Your task to perform on an android device: What's on my calendar tomorrow? Image 0: 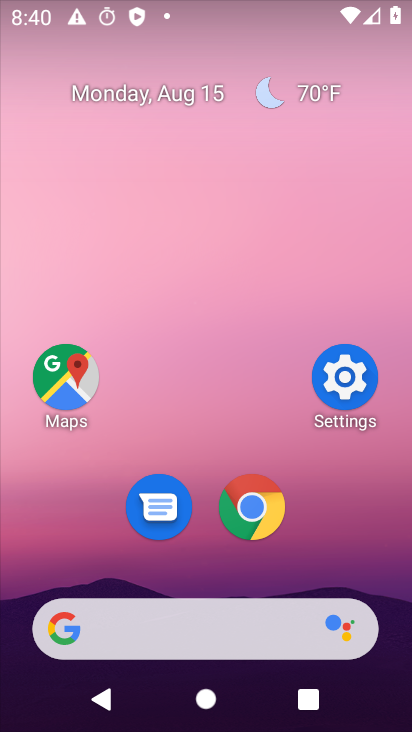
Step 0: drag from (247, 605) to (403, 429)
Your task to perform on an android device: What's on my calendar tomorrow? Image 1: 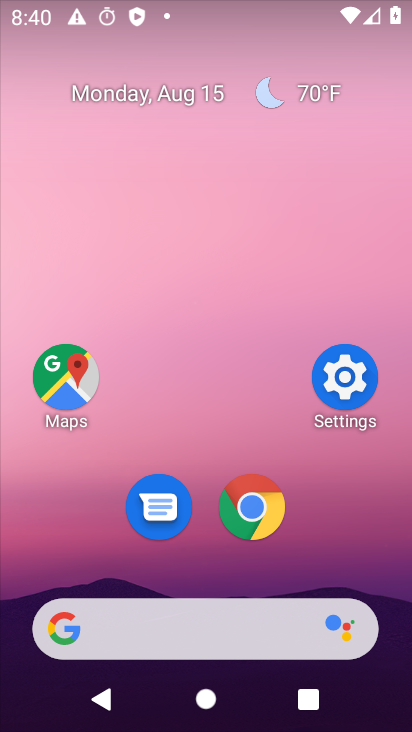
Step 1: drag from (203, 651) to (359, 15)
Your task to perform on an android device: What's on my calendar tomorrow? Image 2: 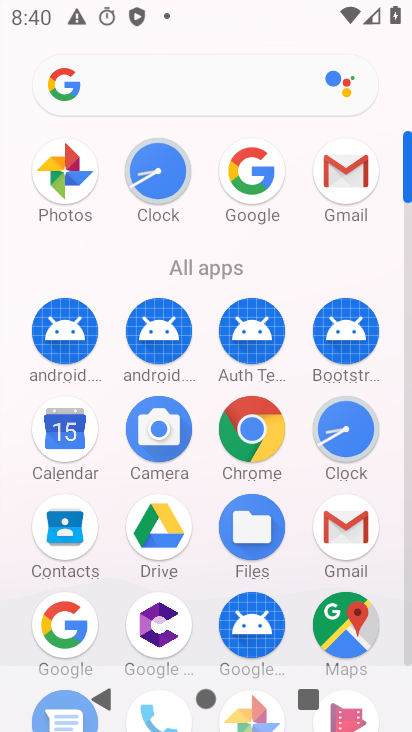
Step 2: click (65, 430)
Your task to perform on an android device: What's on my calendar tomorrow? Image 3: 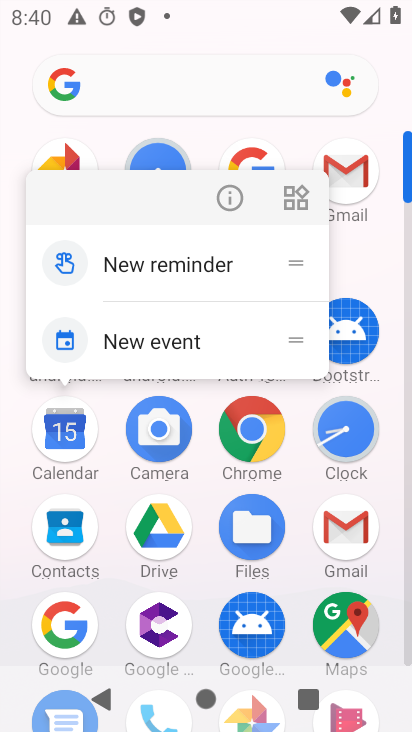
Step 3: click (65, 430)
Your task to perform on an android device: What's on my calendar tomorrow? Image 4: 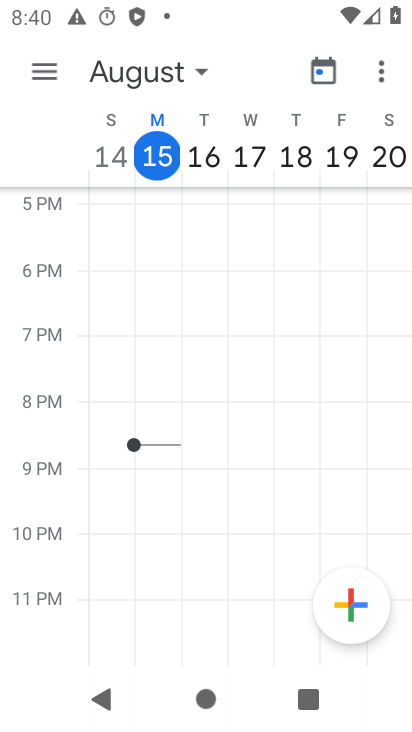
Step 4: click (210, 149)
Your task to perform on an android device: What's on my calendar tomorrow? Image 5: 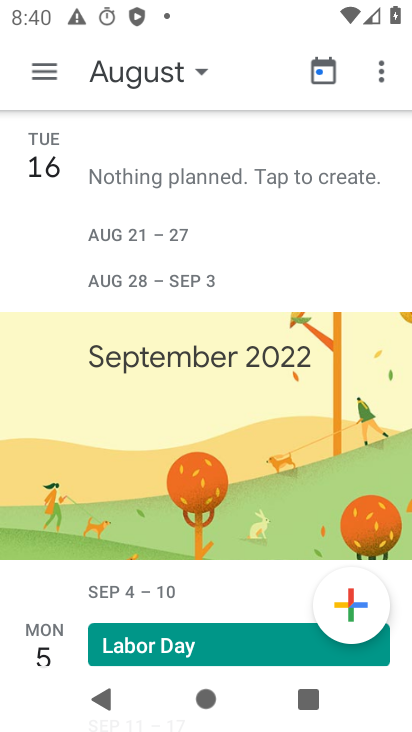
Step 5: task complete